Your task to perform on an android device: Show the shopping cart on newegg.com. Image 0: 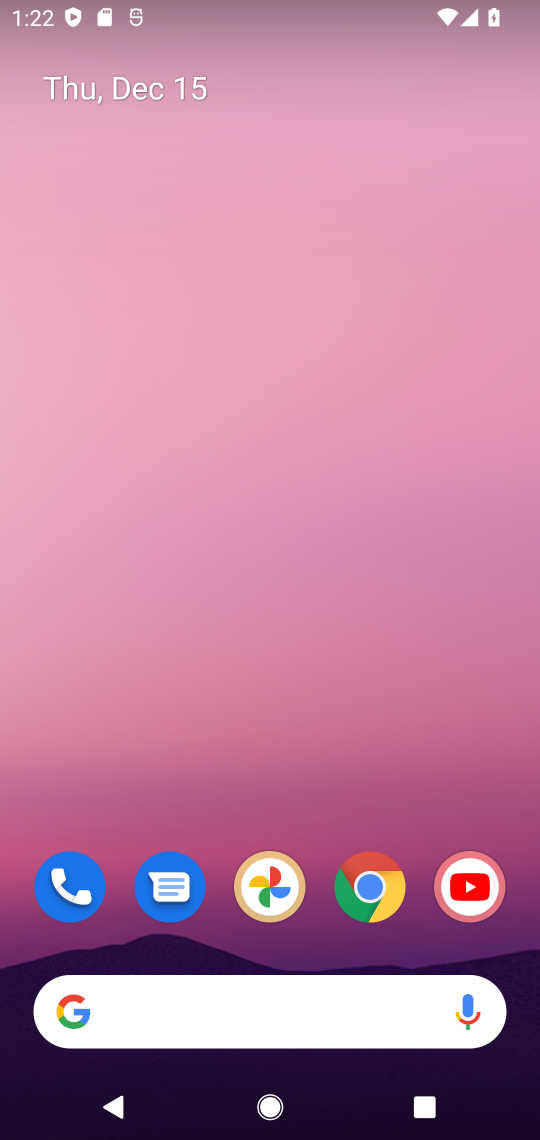
Step 0: click (363, 900)
Your task to perform on an android device: Show the shopping cart on newegg.com. Image 1: 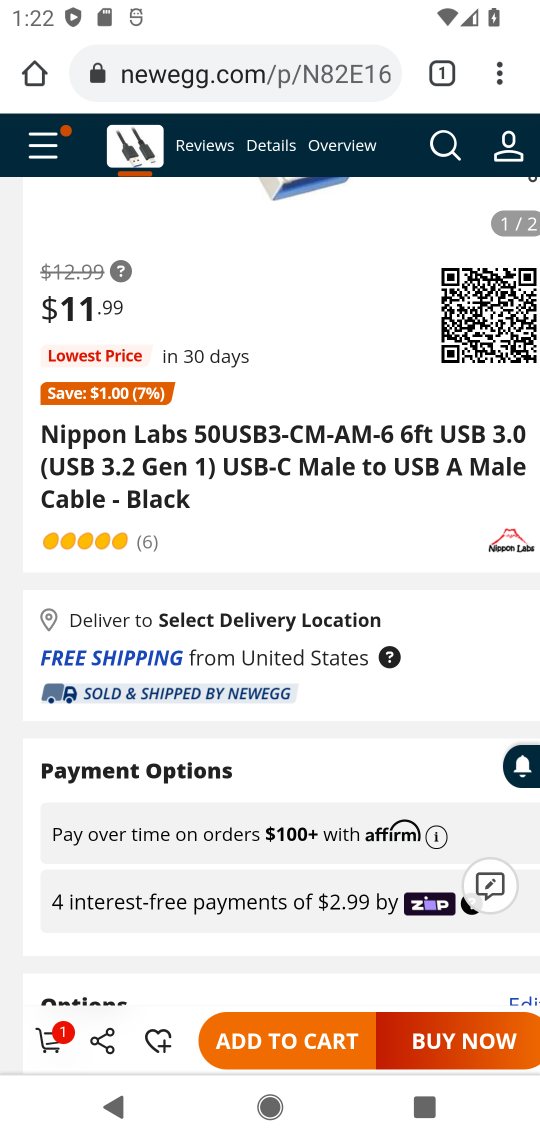
Step 1: drag from (381, 275) to (389, 390)
Your task to perform on an android device: Show the shopping cart on newegg.com. Image 2: 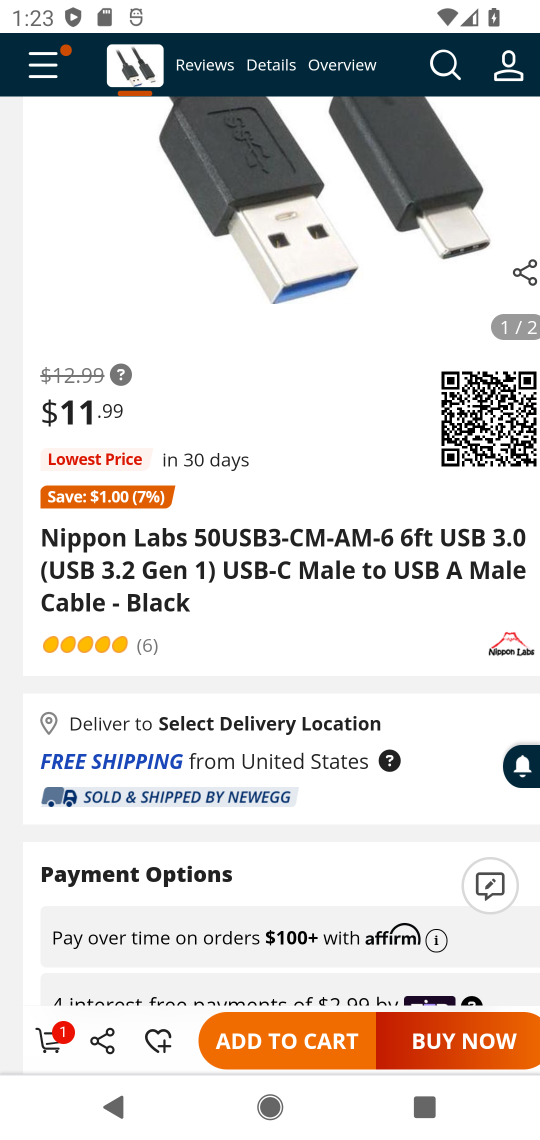
Step 2: click (50, 1034)
Your task to perform on an android device: Show the shopping cart on newegg.com. Image 3: 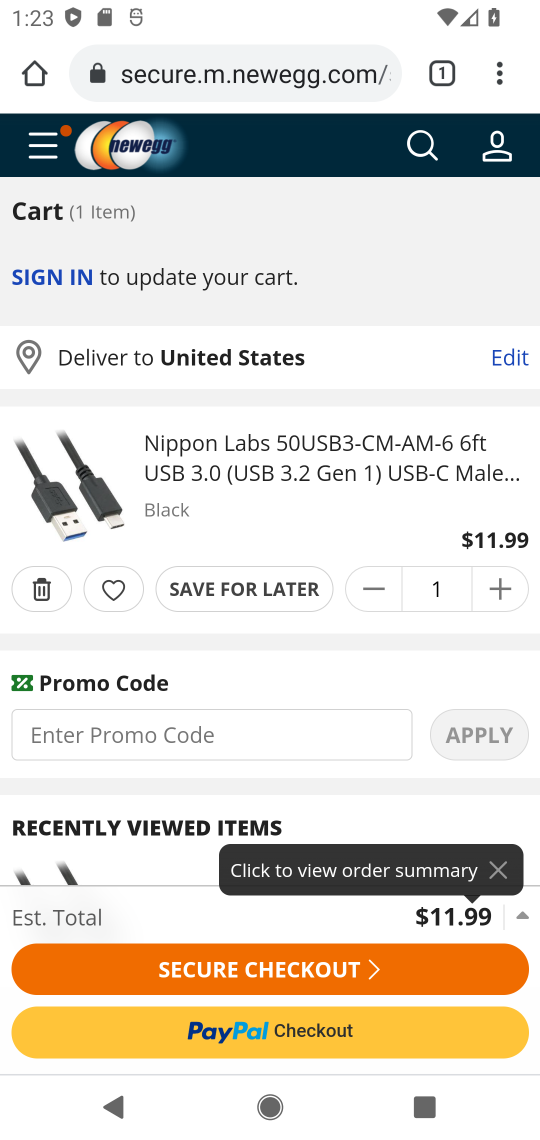
Step 3: task complete